Your task to perform on an android device: turn off translation in the chrome app Image 0: 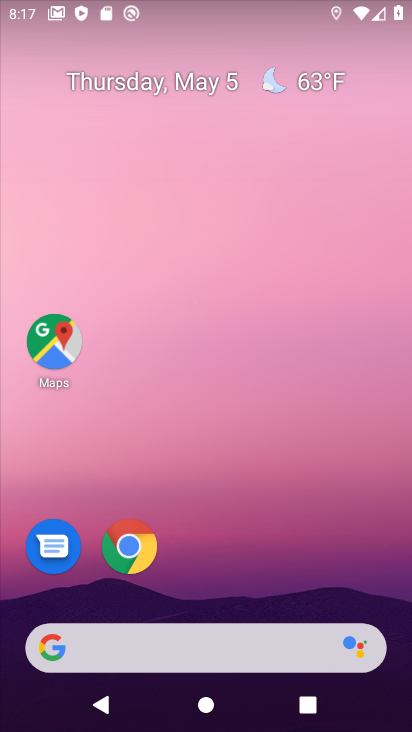
Step 0: drag from (272, 596) to (187, 209)
Your task to perform on an android device: turn off translation in the chrome app Image 1: 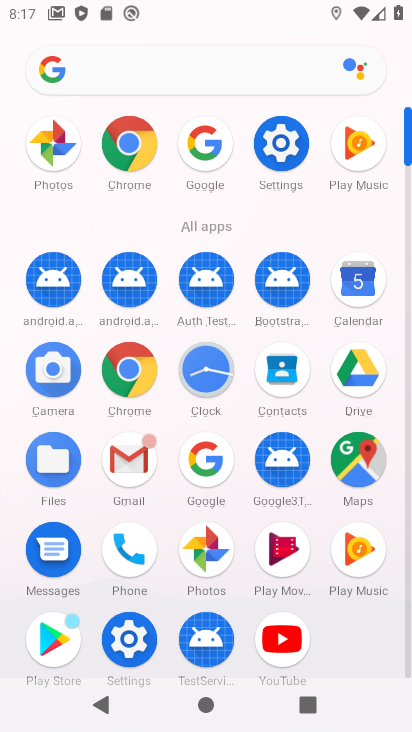
Step 1: click (125, 149)
Your task to perform on an android device: turn off translation in the chrome app Image 2: 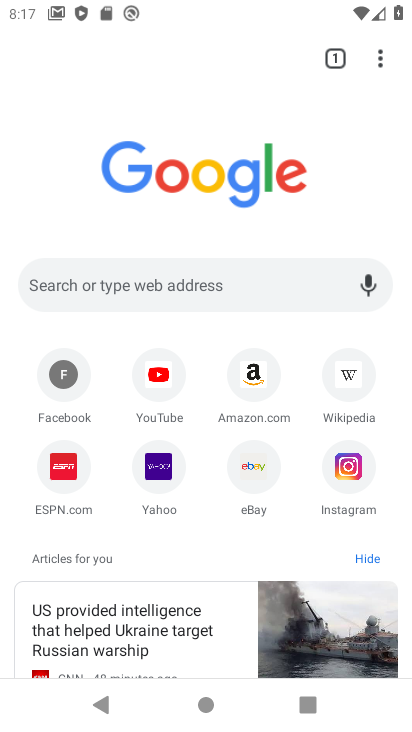
Step 2: drag from (376, 61) to (386, 244)
Your task to perform on an android device: turn off translation in the chrome app Image 3: 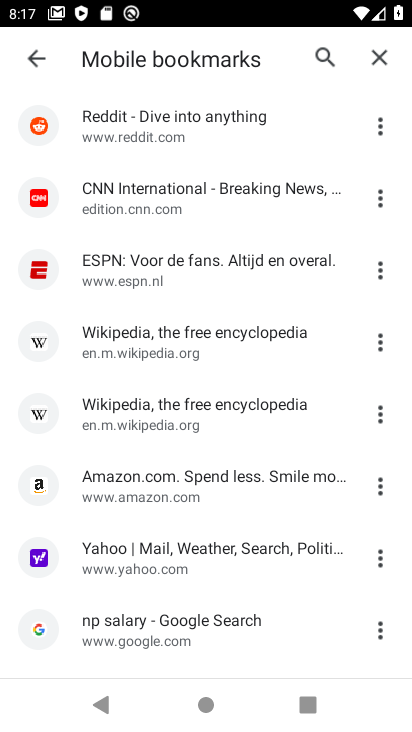
Step 3: click (30, 55)
Your task to perform on an android device: turn off translation in the chrome app Image 4: 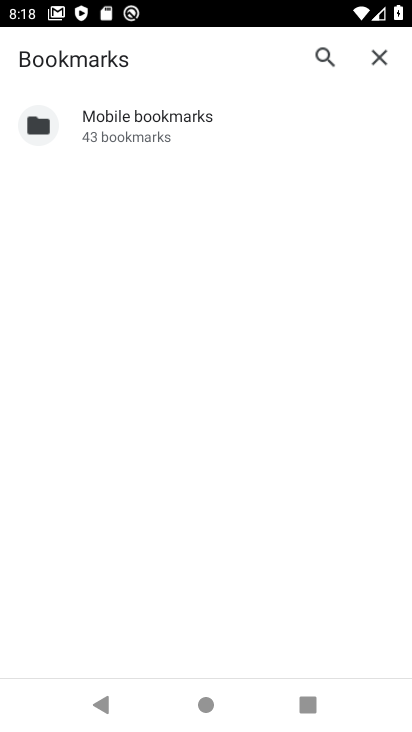
Step 4: click (378, 59)
Your task to perform on an android device: turn off translation in the chrome app Image 5: 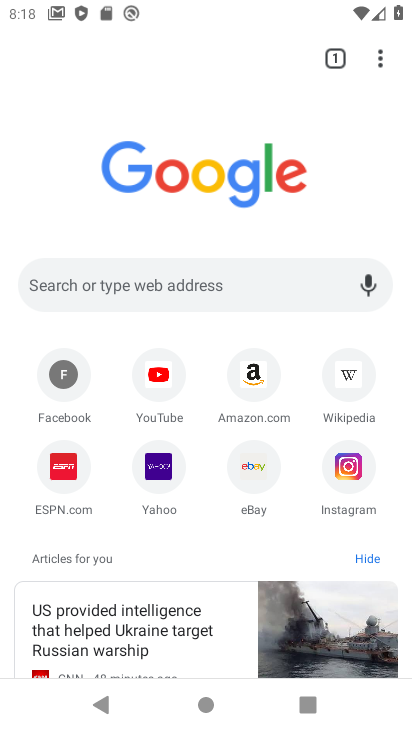
Step 5: click (377, 64)
Your task to perform on an android device: turn off translation in the chrome app Image 6: 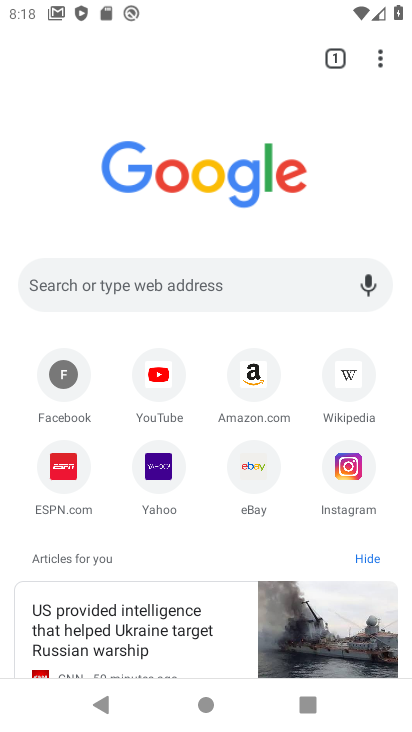
Step 6: click (377, 58)
Your task to perform on an android device: turn off translation in the chrome app Image 7: 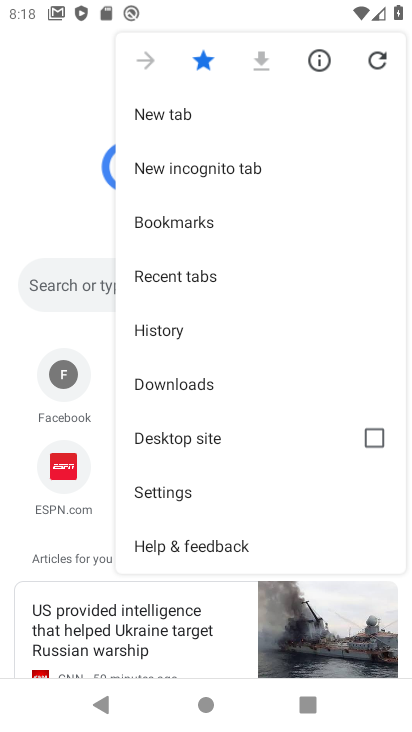
Step 7: click (152, 492)
Your task to perform on an android device: turn off translation in the chrome app Image 8: 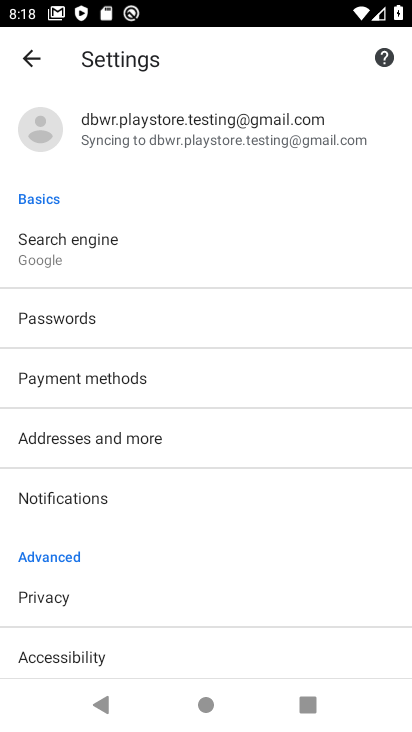
Step 8: drag from (121, 535) to (200, 230)
Your task to perform on an android device: turn off translation in the chrome app Image 9: 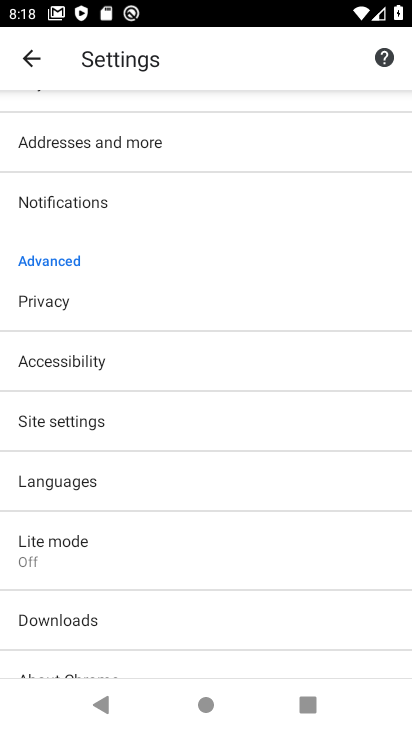
Step 9: click (52, 477)
Your task to perform on an android device: turn off translation in the chrome app Image 10: 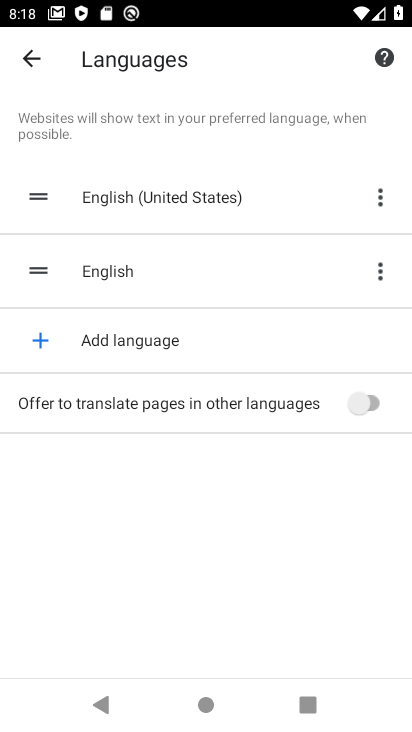
Step 10: task complete